Your task to perform on an android device: make emails show in primary in the gmail app Image 0: 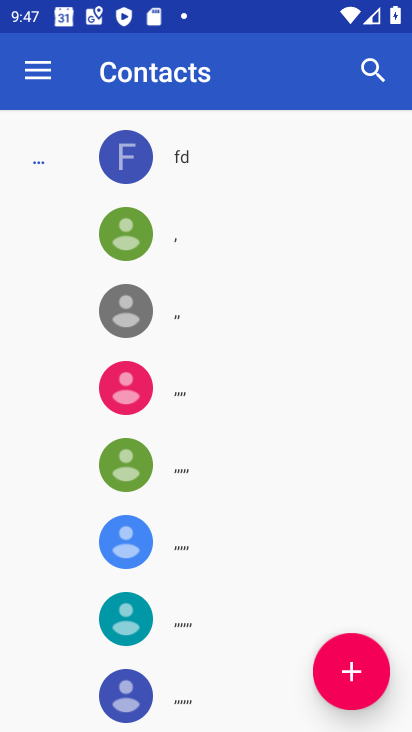
Step 0: press home button
Your task to perform on an android device: make emails show in primary in the gmail app Image 1: 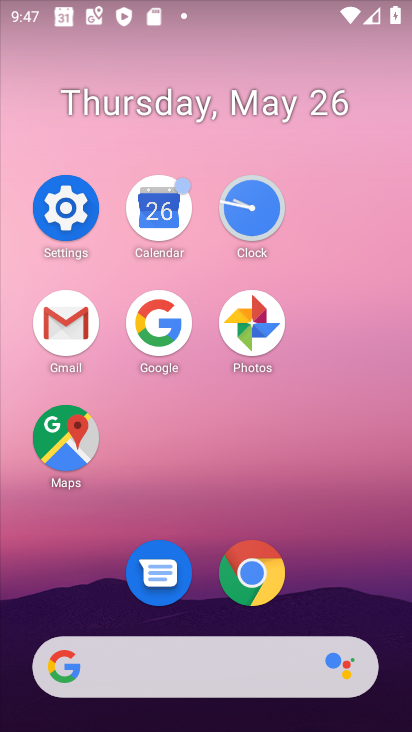
Step 1: click (70, 308)
Your task to perform on an android device: make emails show in primary in the gmail app Image 2: 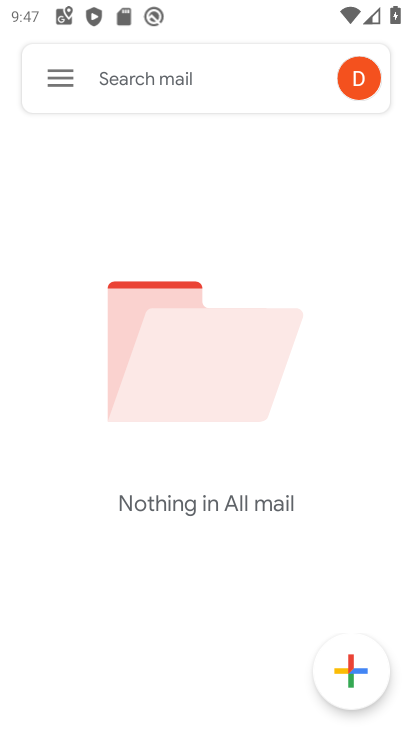
Step 2: click (62, 91)
Your task to perform on an android device: make emails show in primary in the gmail app Image 3: 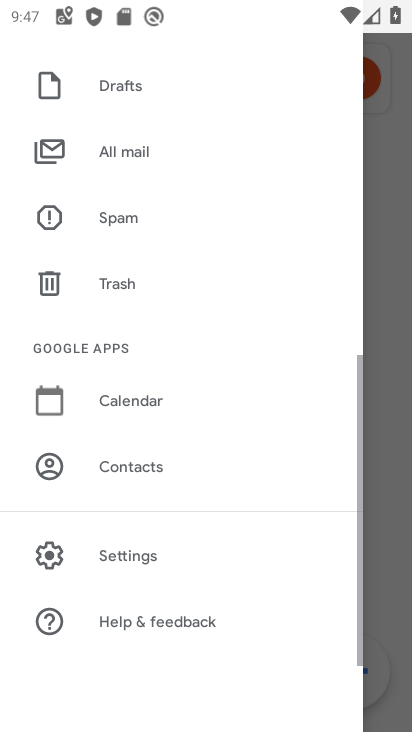
Step 3: drag from (193, 553) to (212, 123)
Your task to perform on an android device: make emails show in primary in the gmail app Image 4: 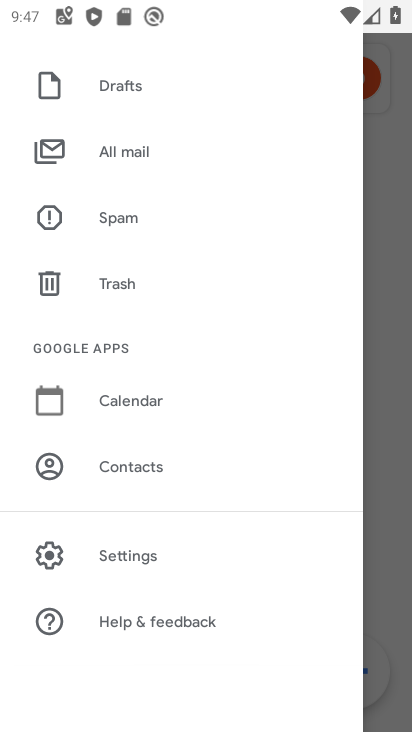
Step 4: click (192, 532)
Your task to perform on an android device: make emails show in primary in the gmail app Image 5: 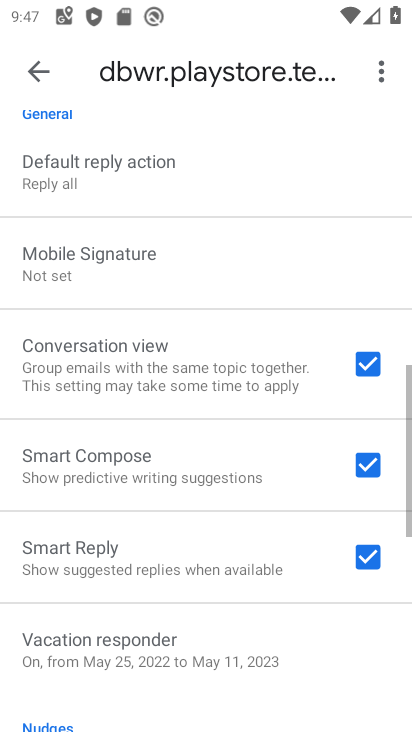
Step 5: drag from (195, 532) to (217, 189)
Your task to perform on an android device: make emails show in primary in the gmail app Image 6: 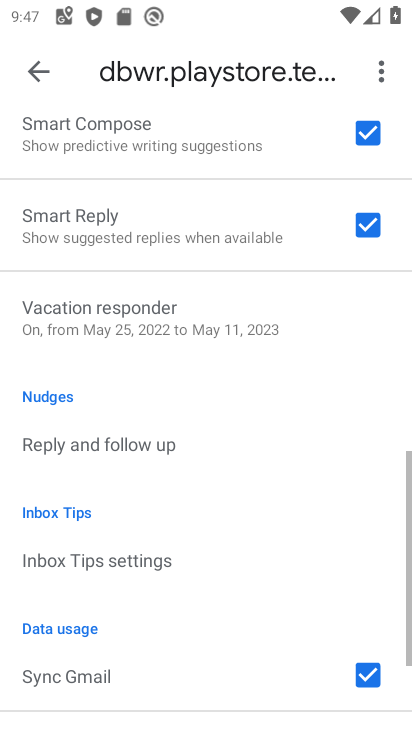
Step 6: drag from (217, 187) to (241, 637)
Your task to perform on an android device: make emails show in primary in the gmail app Image 7: 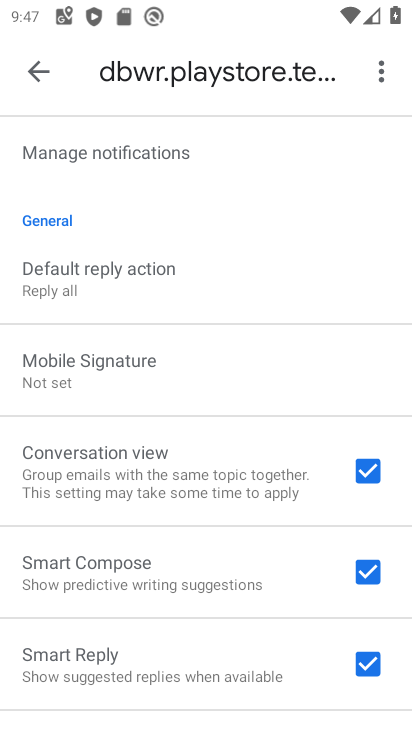
Step 7: drag from (246, 168) to (252, 618)
Your task to perform on an android device: make emails show in primary in the gmail app Image 8: 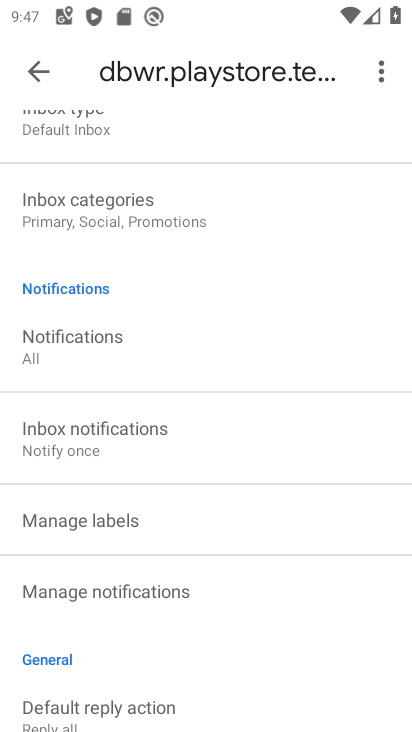
Step 8: click (179, 207)
Your task to perform on an android device: make emails show in primary in the gmail app Image 9: 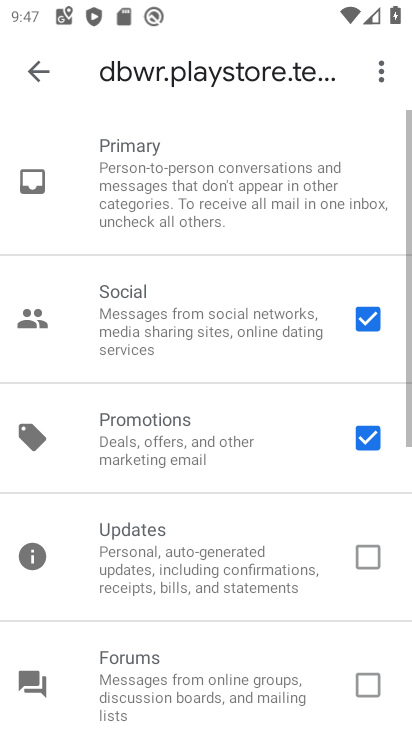
Step 9: click (359, 328)
Your task to perform on an android device: make emails show in primary in the gmail app Image 10: 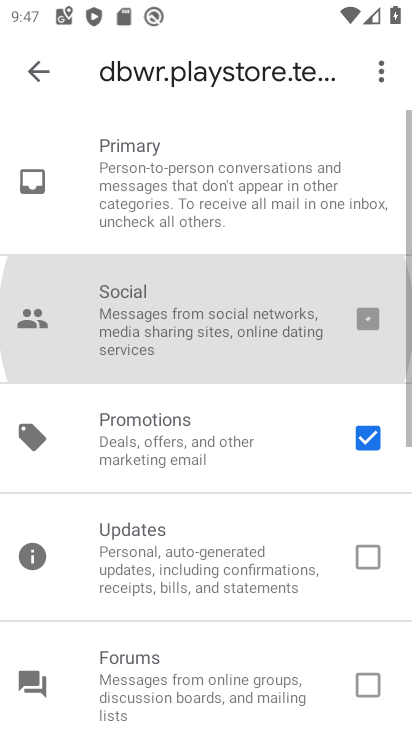
Step 10: click (371, 428)
Your task to perform on an android device: make emails show in primary in the gmail app Image 11: 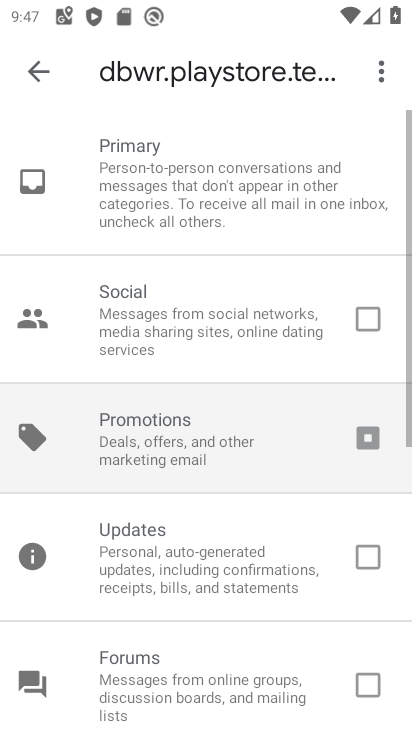
Step 11: drag from (264, 506) to (281, 163)
Your task to perform on an android device: make emails show in primary in the gmail app Image 12: 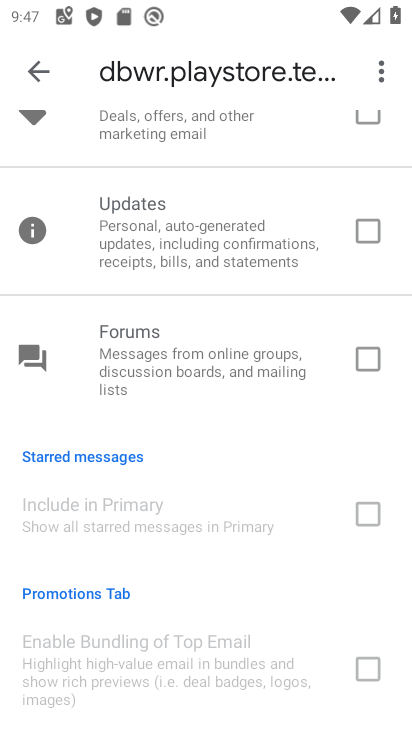
Step 12: click (44, 69)
Your task to perform on an android device: make emails show in primary in the gmail app Image 13: 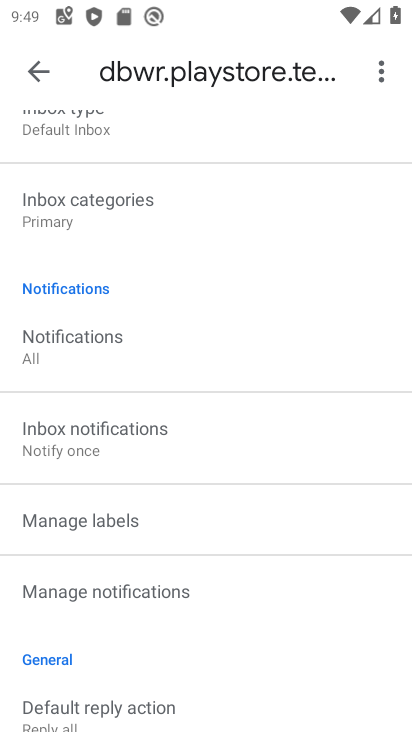
Step 13: task complete